Your task to perform on an android device: Go to privacy settings Image 0: 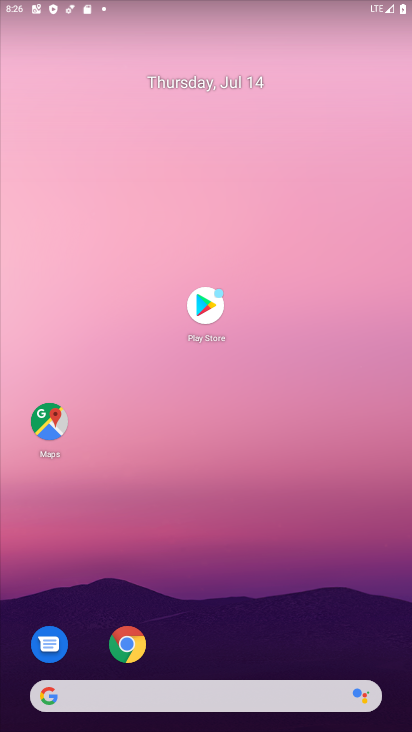
Step 0: drag from (161, 635) to (169, 278)
Your task to perform on an android device: Go to privacy settings Image 1: 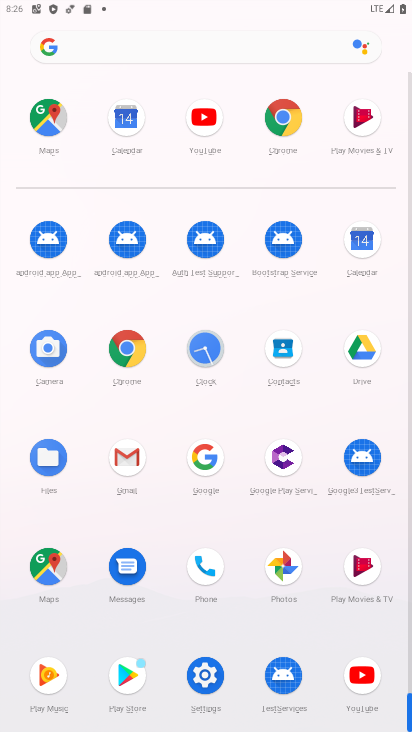
Step 1: click (208, 682)
Your task to perform on an android device: Go to privacy settings Image 2: 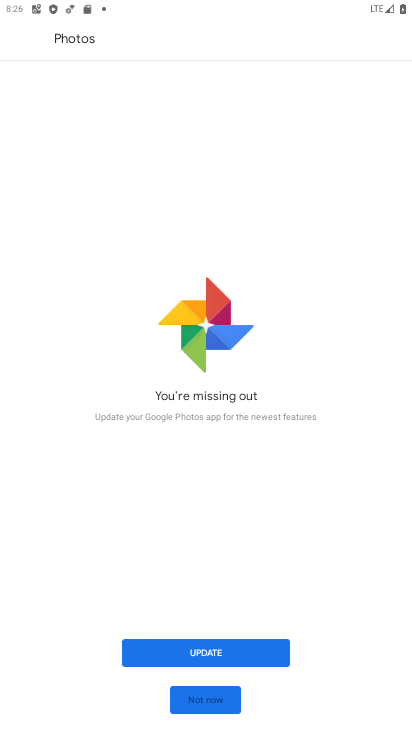
Step 2: click (198, 692)
Your task to perform on an android device: Go to privacy settings Image 3: 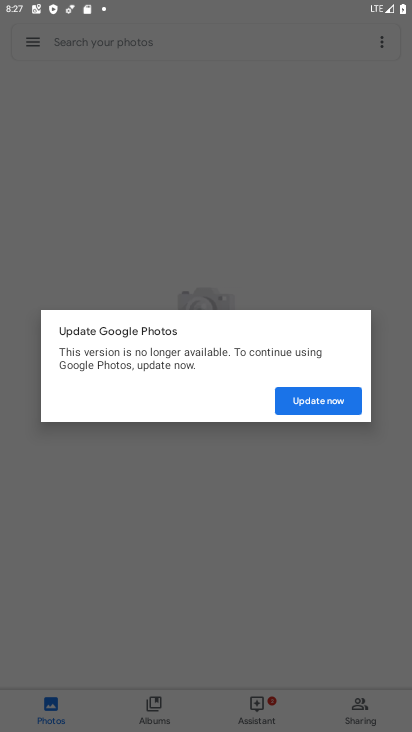
Step 3: press home button
Your task to perform on an android device: Go to privacy settings Image 4: 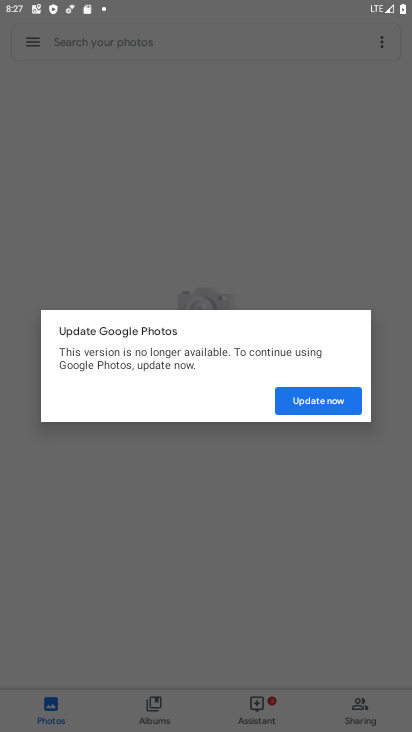
Step 4: press home button
Your task to perform on an android device: Go to privacy settings Image 5: 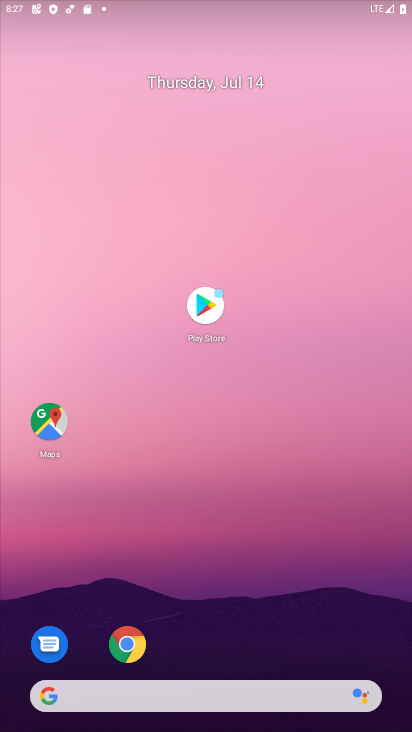
Step 5: drag from (220, 631) to (220, 175)
Your task to perform on an android device: Go to privacy settings Image 6: 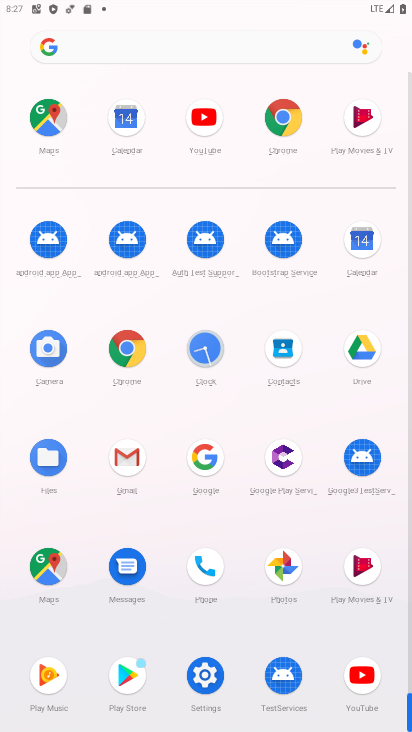
Step 6: drag from (166, 652) to (182, 300)
Your task to perform on an android device: Go to privacy settings Image 7: 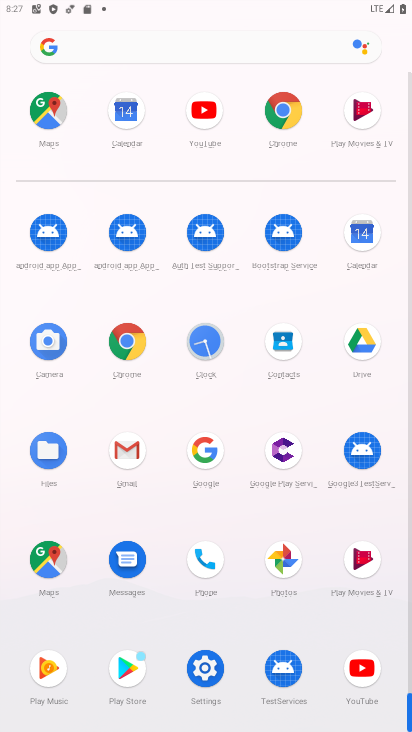
Step 7: click (204, 671)
Your task to perform on an android device: Go to privacy settings Image 8: 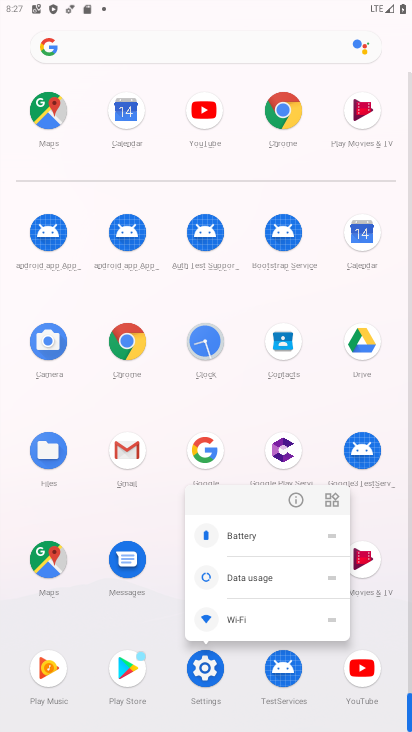
Step 8: click (295, 505)
Your task to perform on an android device: Go to privacy settings Image 9: 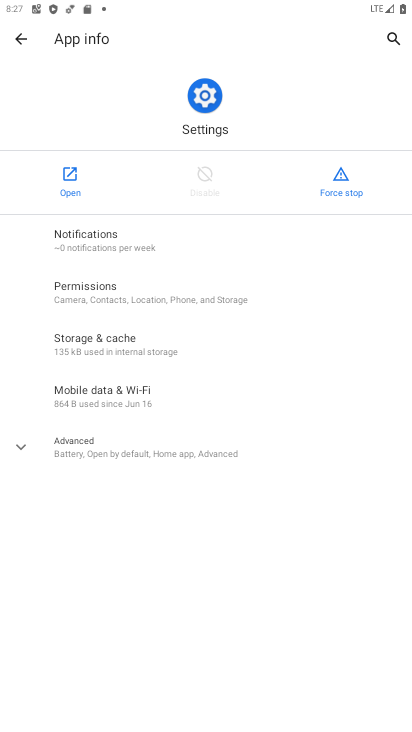
Step 9: click (82, 185)
Your task to perform on an android device: Go to privacy settings Image 10: 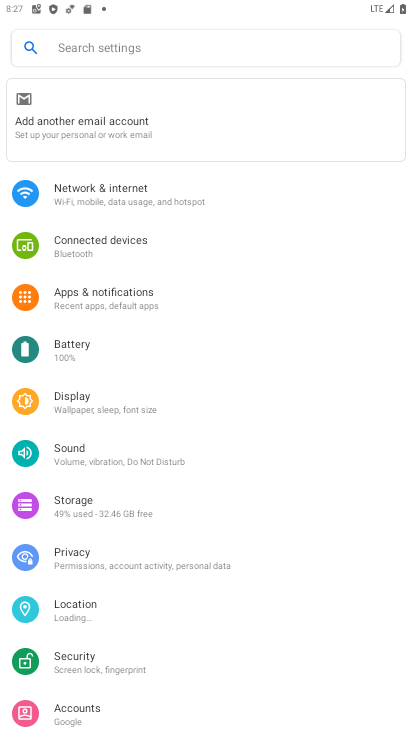
Step 10: click (121, 551)
Your task to perform on an android device: Go to privacy settings Image 11: 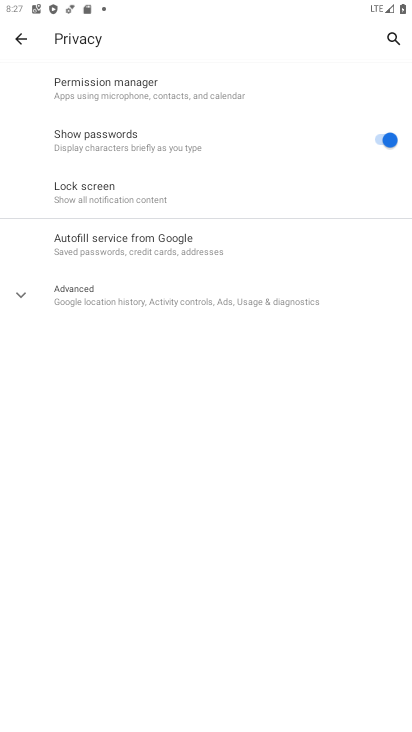
Step 11: click (146, 301)
Your task to perform on an android device: Go to privacy settings Image 12: 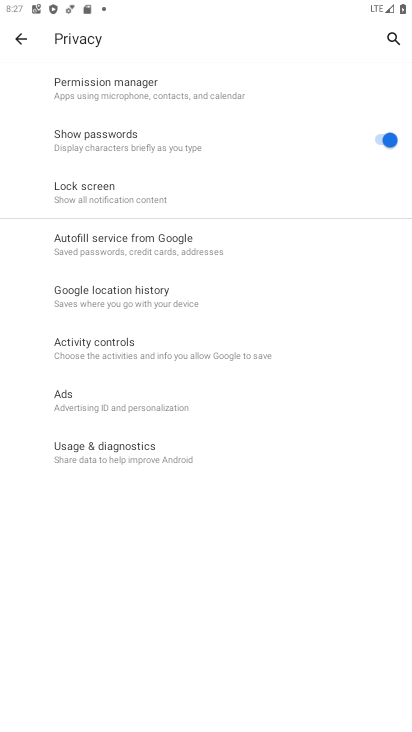
Step 12: task complete